Your task to perform on an android device: allow notifications from all sites in the chrome app Image 0: 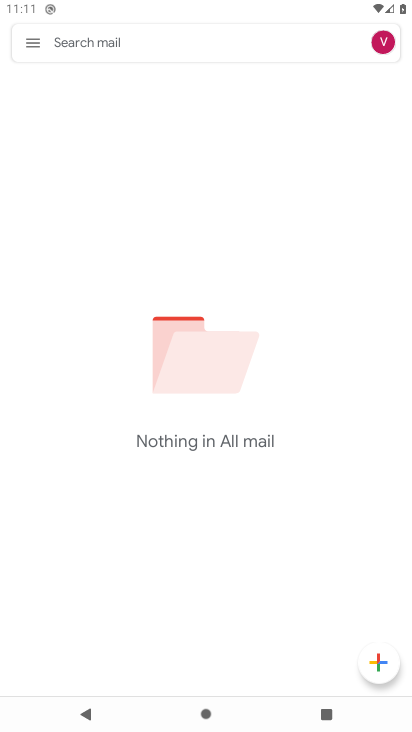
Step 0: press home button
Your task to perform on an android device: allow notifications from all sites in the chrome app Image 1: 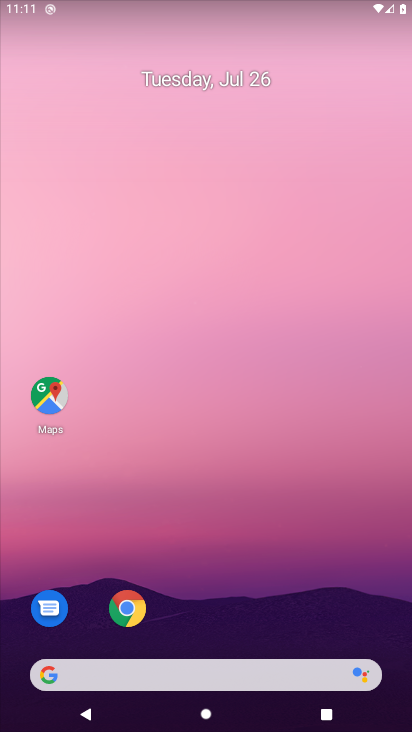
Step 1: click (132, 609)
Your task to perform on an android device: allow notifications from all sites in the chrome app Image 2: 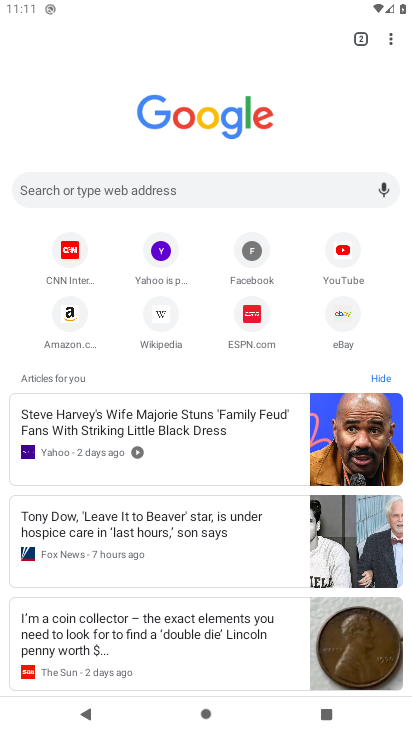
Step 2: click (393, 39)
Your task to perform on an android device: allow notifications from all sites in the chrome app Image 3: 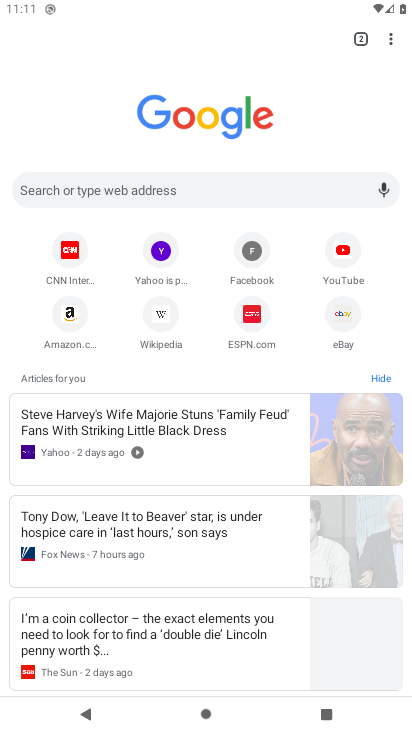
Step 3: drag from (393, 39) to (256, 329)
Your task to perform on an android device: allow notifications from all sites in the chrome app Image 4: 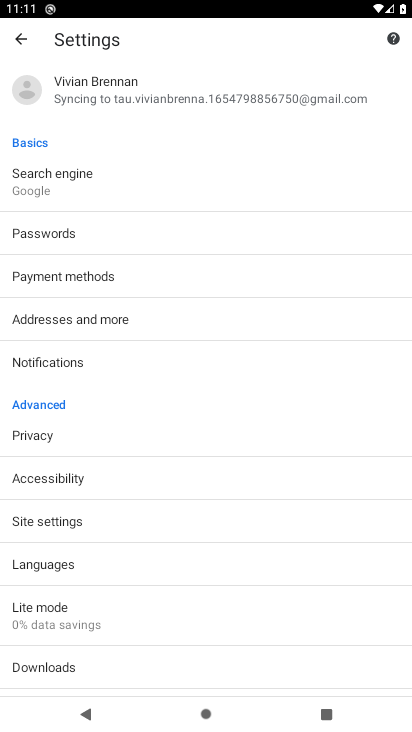
Step 4: click (50, 523)
Your task to perform on an android device: allow notifications from all sites in the chrome app Image 5: 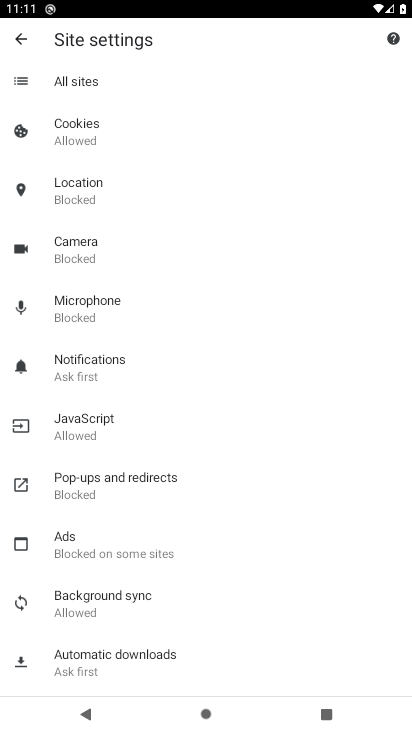
Step 5: click (113, 361)
Your task to perform on an android device: allow notifications from all sites in the chrome app Image 6: 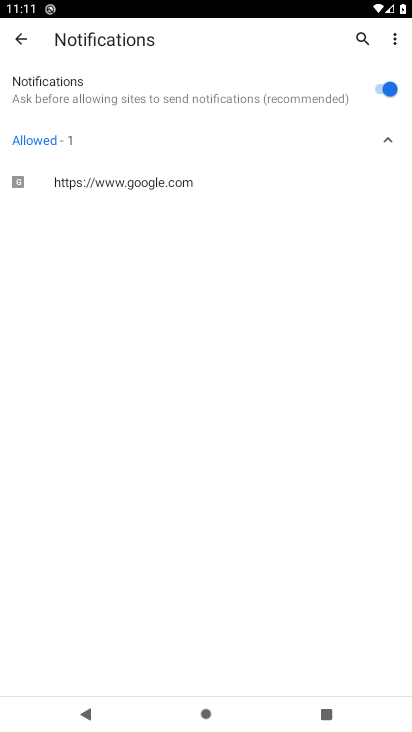
Step 6: task complete